Your task to perform on an android device: Look up the best rated book on Goodreads Image 0: 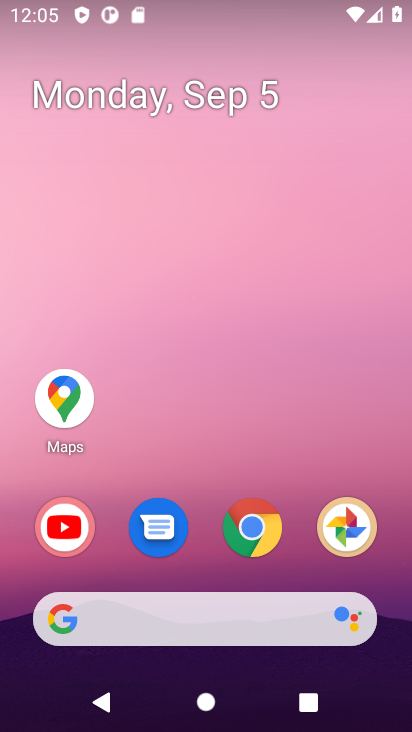
Step 0: click (407, 274)
Your task to perform on an android device: Look up the best rated book on Goodreads Image 1: 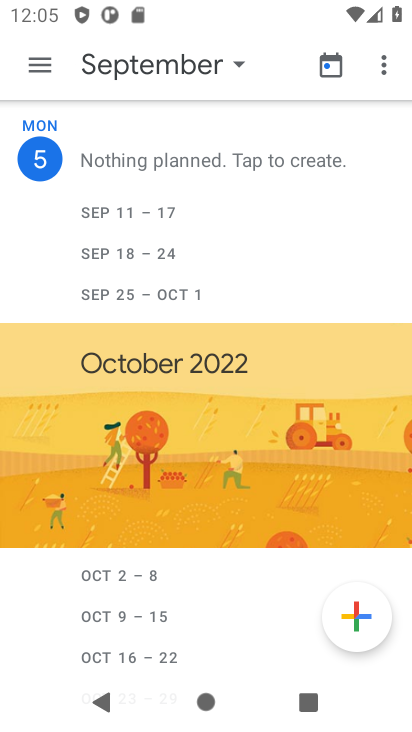
Step 1: press home button
Your task to perform on an android device: Look up the best rated book on Goodreads Image 2: 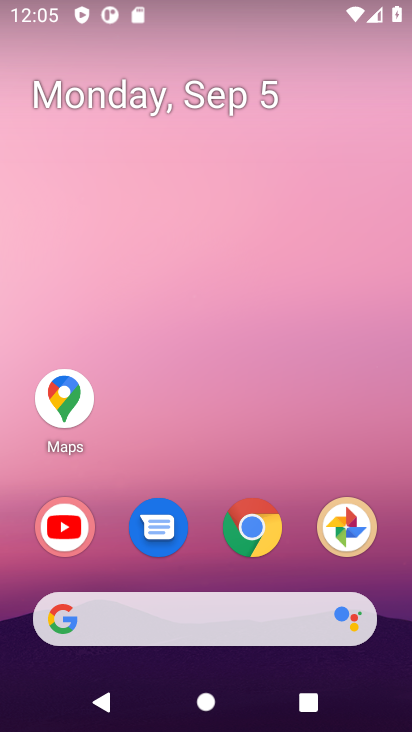
Step 2: click (251, 522)
Your task to perform on an android device: Look up the best rated book on Goodreads Image 3: 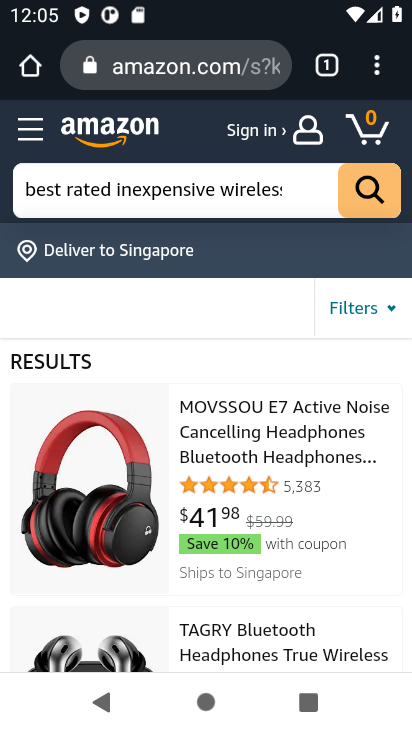
Step 3: click (169, 63)
Your task to perform on an android device: Look up the best rated book on Goodreads Image 4: 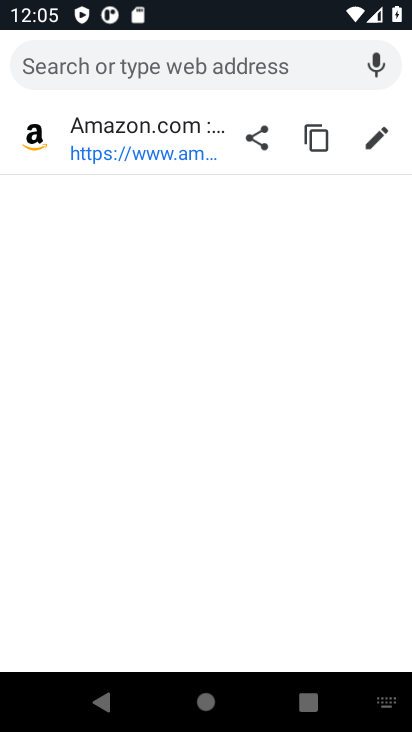
Step 4: type "goodreads"
Your task to perform on an android device: Look up the best rated book on Goodreads Image 5: 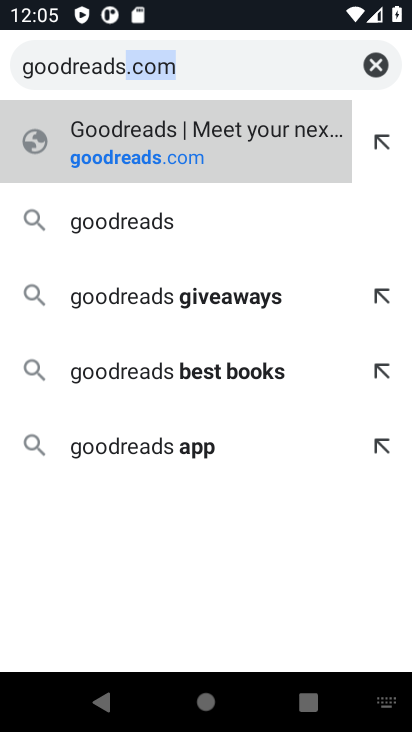
Step 5: click (294, 143)
Your task to perform on an android device: Look up the best rated book on Goodreads Image 6: 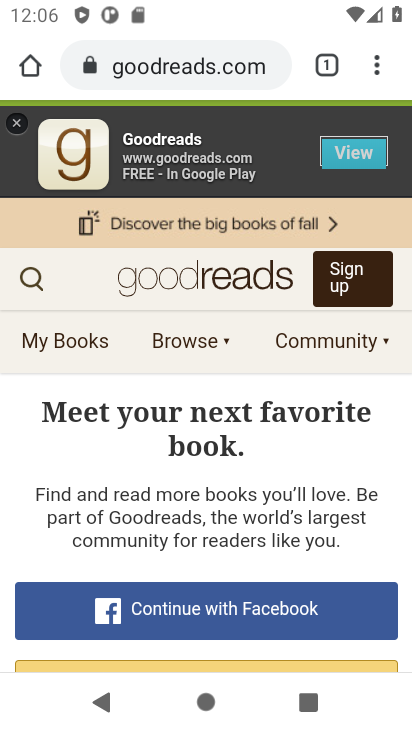
Step 6: click (31, 280)
Your task to perform on an android device: Look up the best rated book on Goodreads Image 7: 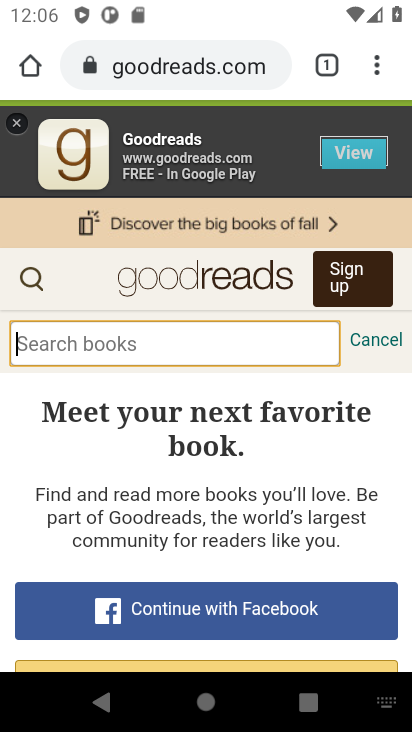
Step 7: type "the best rated book"
Your task to perform on an android device: Look up the best rated book on Goodreads Image 8: 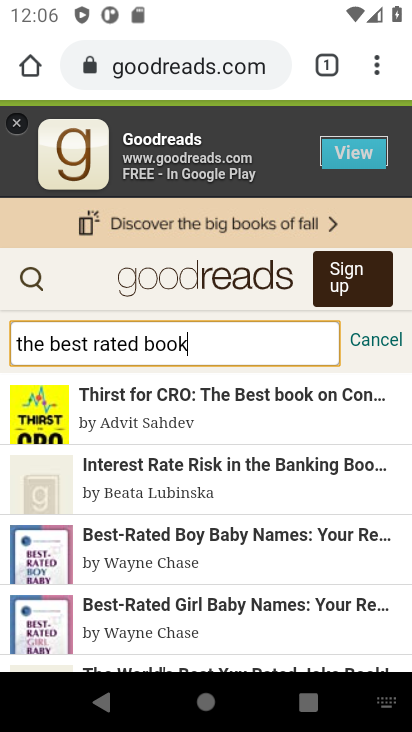
Step 8: click (300, 419)
Your task to perform on an android device: Look up the best rated book on Goodreads Image 9: 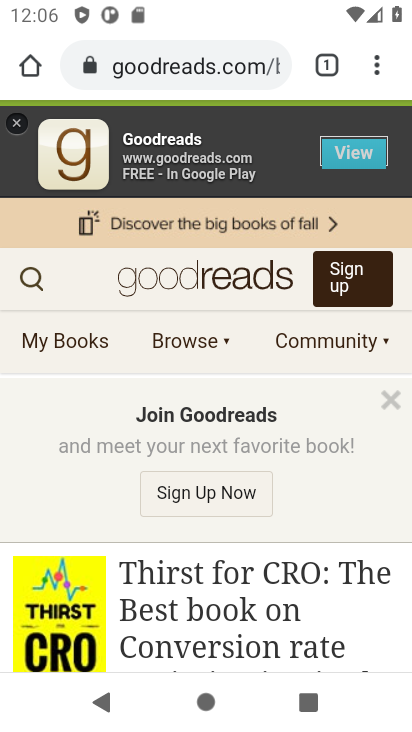
Step 9: task complete